Your task to perform on an android device: Open accessibility settings Image 0: 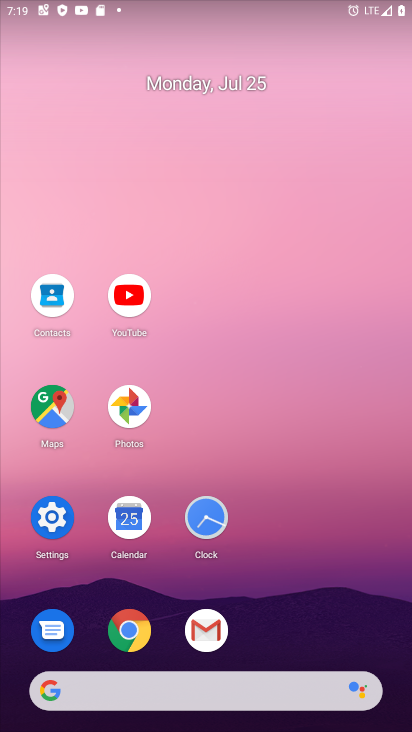
Step 0: click (55, 513)
Your task to perform on an android device: Open accessibility settings Image 1: 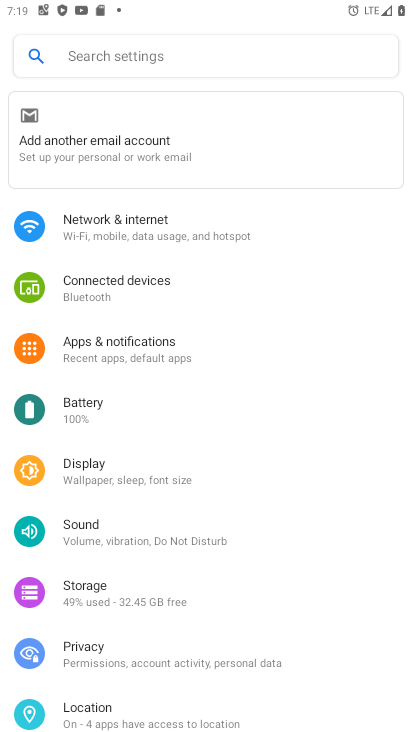
Step 1: drag from (305, 618) to (282, 277)
Your task to perform on an android device: Open accessibility settings Image 2: 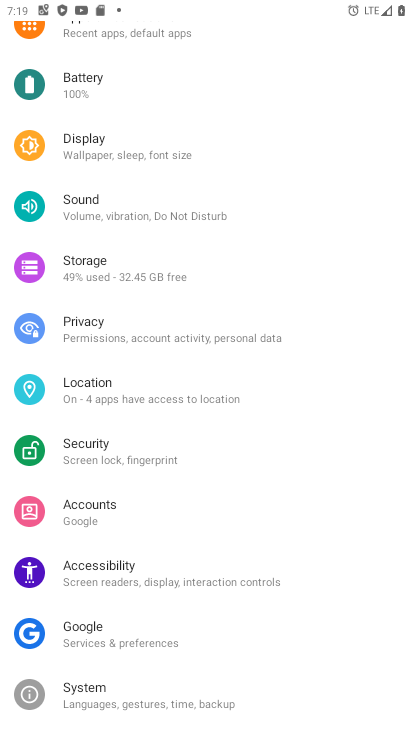
Step 2: click (84, 561)
Your task to perform on an android device: Open accessibility settings Image 3: 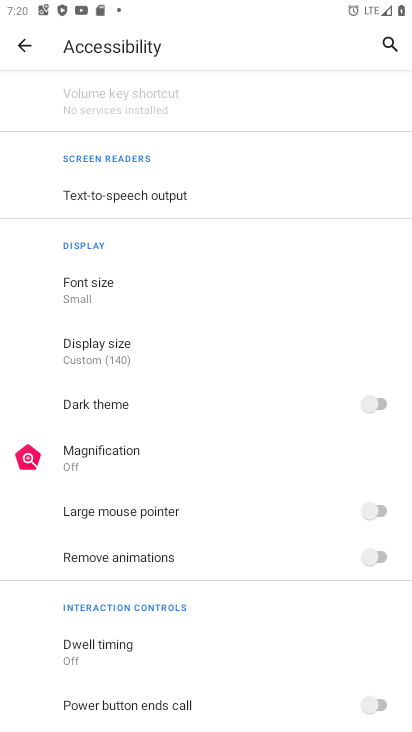
Step 3: task complete